Your task to perform on an android device: What's the price of the Galaxy phone? Image 0: 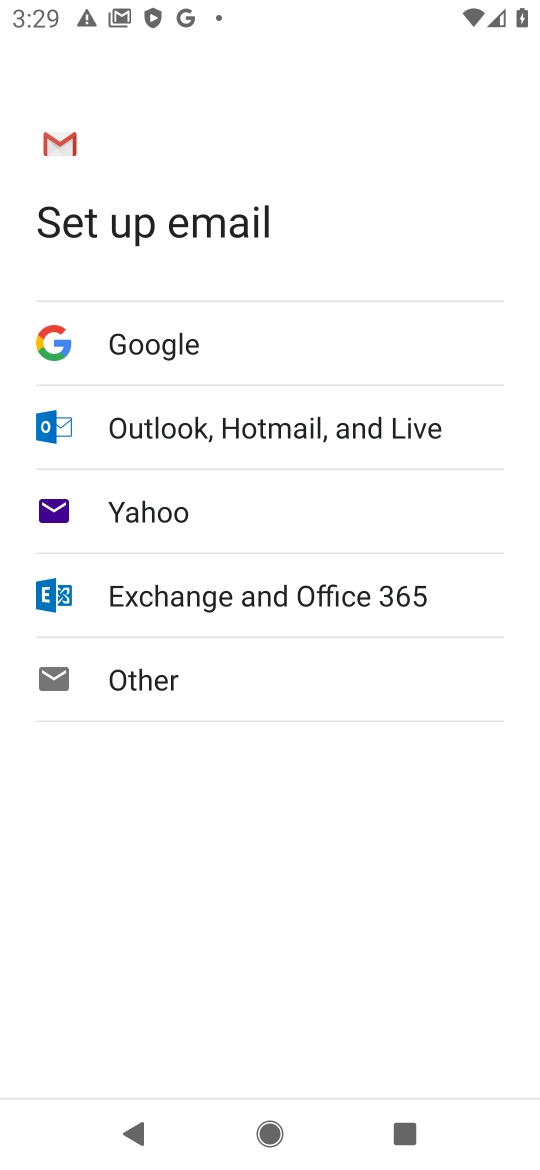
Step 0: press home button
Your task to perform on an android device: What's the price of the Galaxy phone? Image 1: 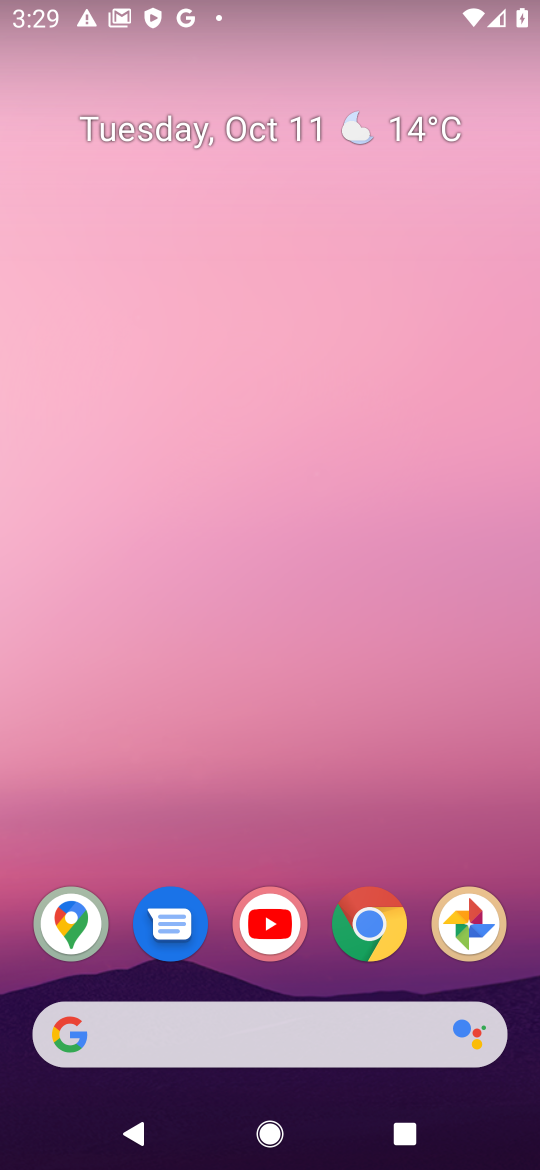
Step 1: drag from (325, 871) to (310, 736)
Your task to perform on an android device: What's the price of the Galaxy phone? Image 2: 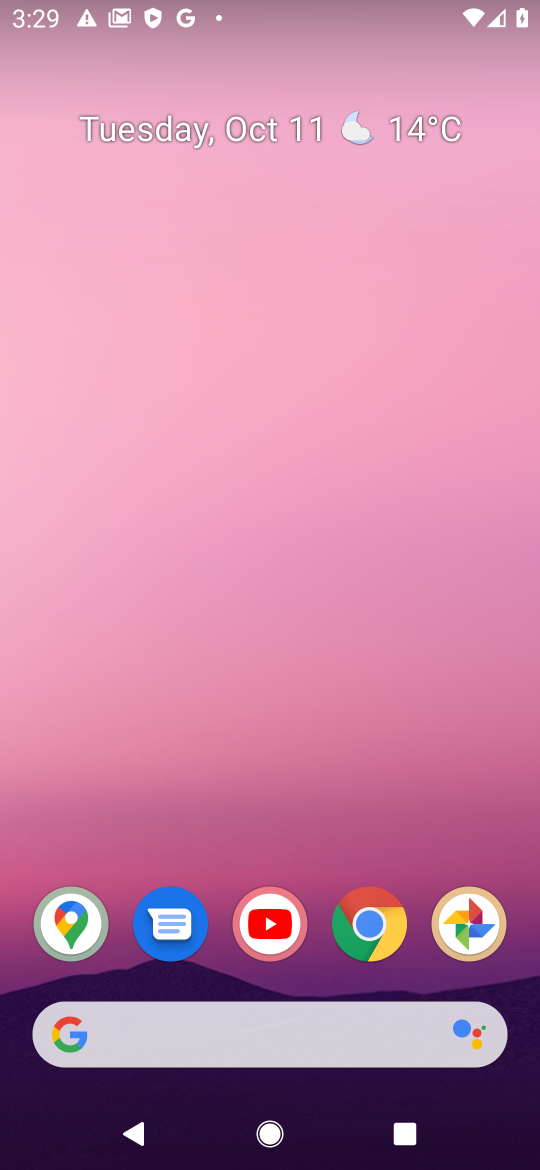
Step 2: click (379, 896)
Your task to perform on an android device: What's the price of the Galaxy phone? Image 3: 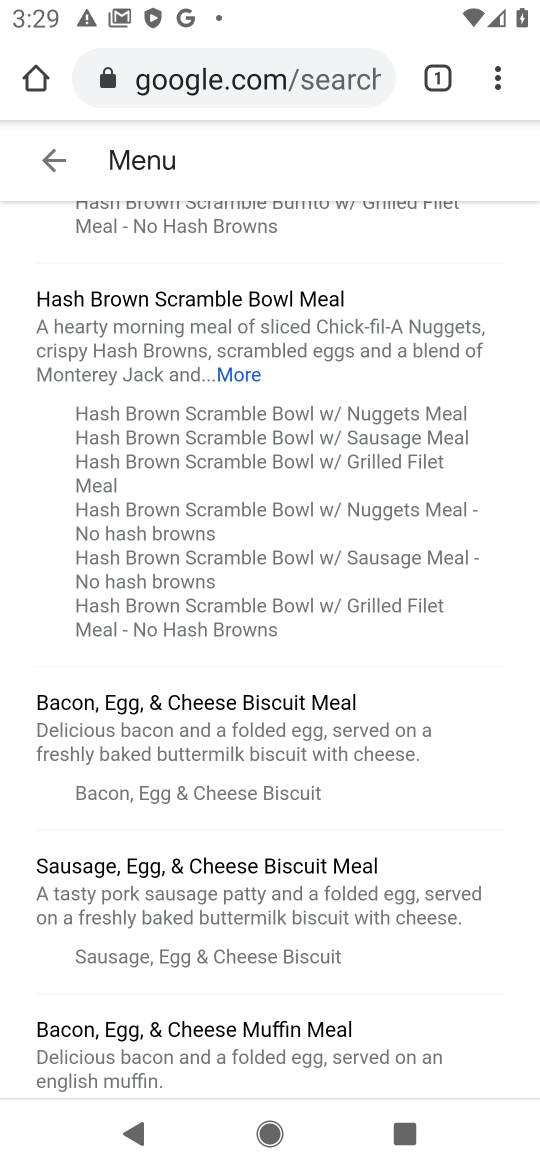
Step 3: click (260, 74)
Your task to perform on an android device: What's the price of the Galaxy phone? Image 4: 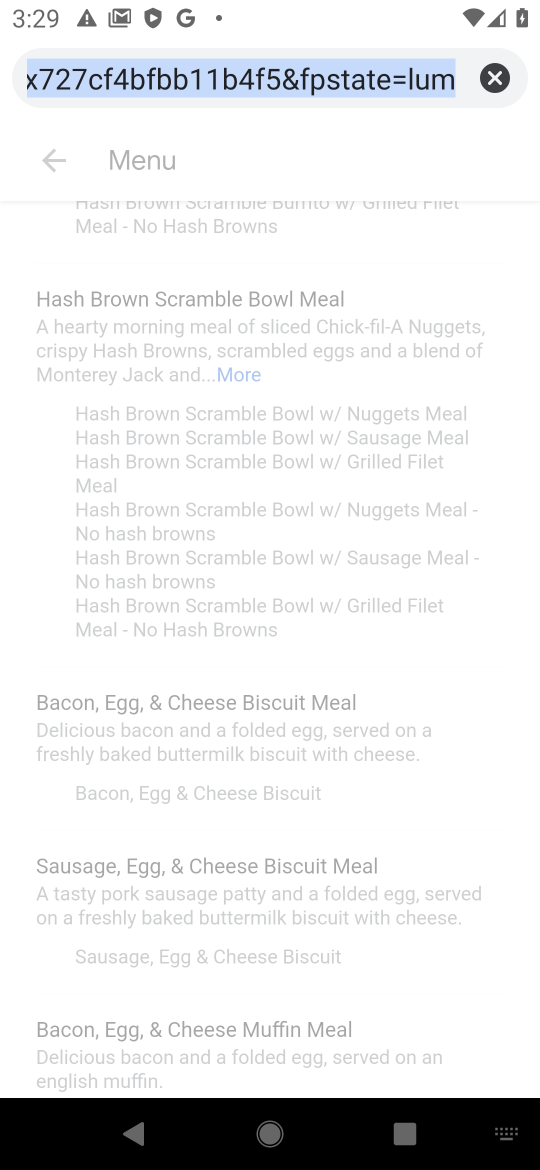
Step 4: type "price of the Galaxy phone"
Your task to perform on an android device: What's the price of the Galaxy phone? Image 5: 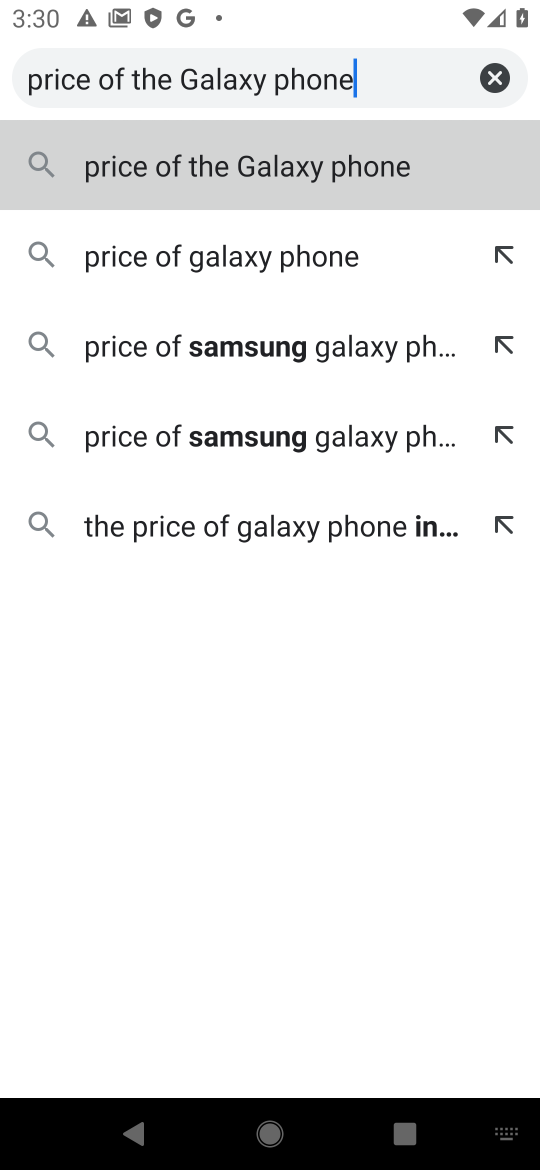
Step 5: click (264, 183)
Your task to perform on an android device: What's the price of the Galaxy phone? Image 6: 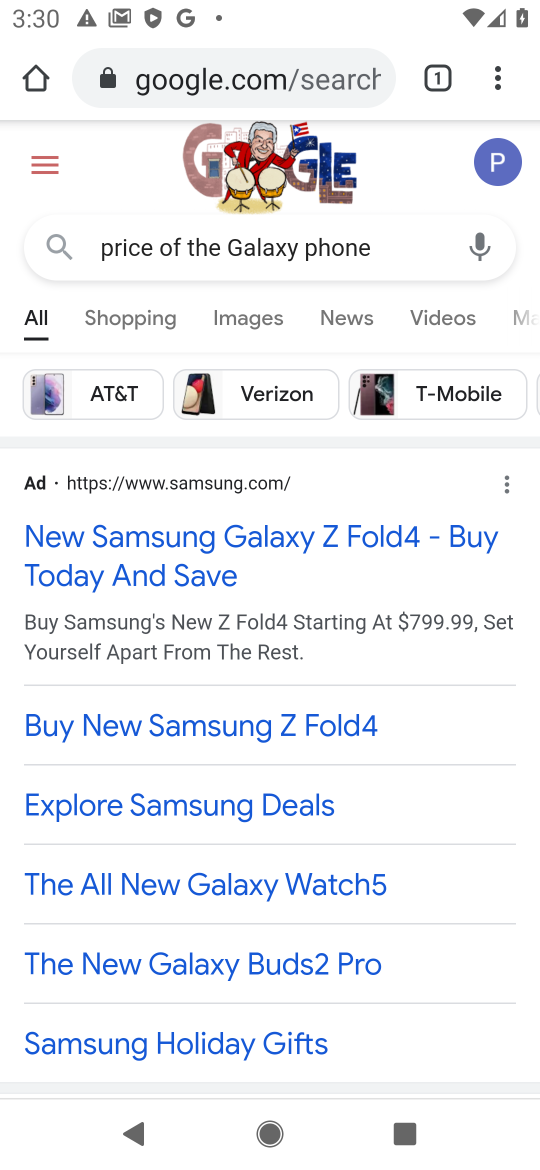
Step 6: task complete